Your task to perform on an android device: Go to Wikipedia Image 0: 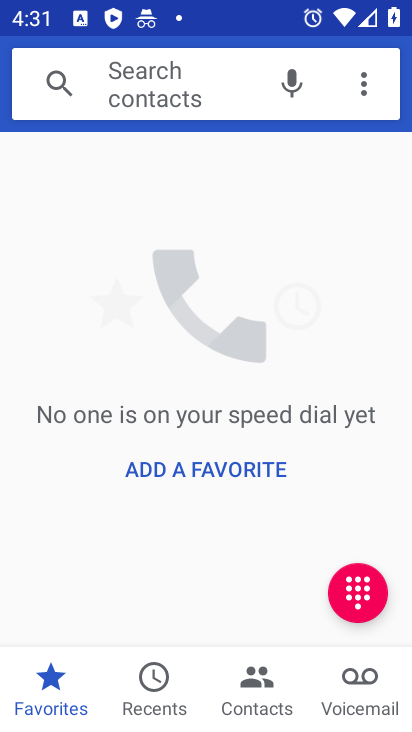
Step 0: press home button
Your task to perform on an android device: Go to Wikipedia Image 1: 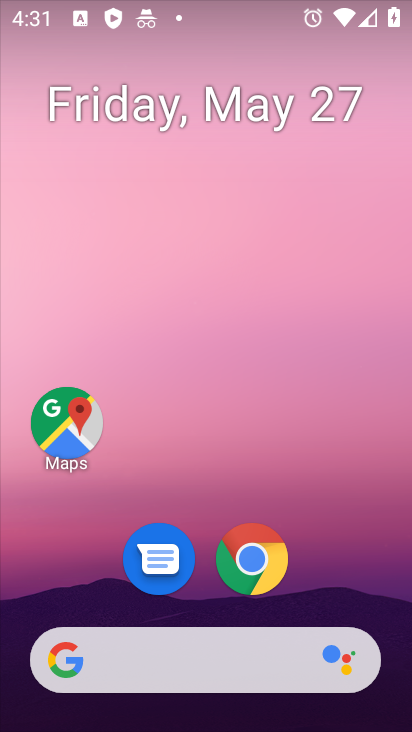
Step 1: drag from (326, 648) to (321, 6)
Your task to perform on an android device: Go to Wikipedia Image 2: 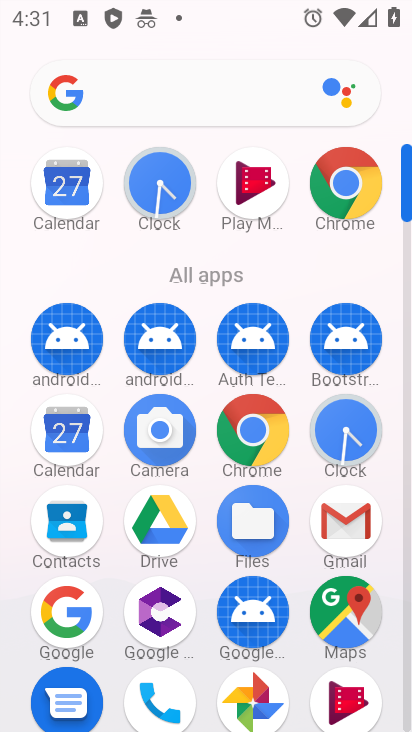
Step 2: click (270, 435)
Your task to perform on an android device: Go to Wikipedia Image 3: 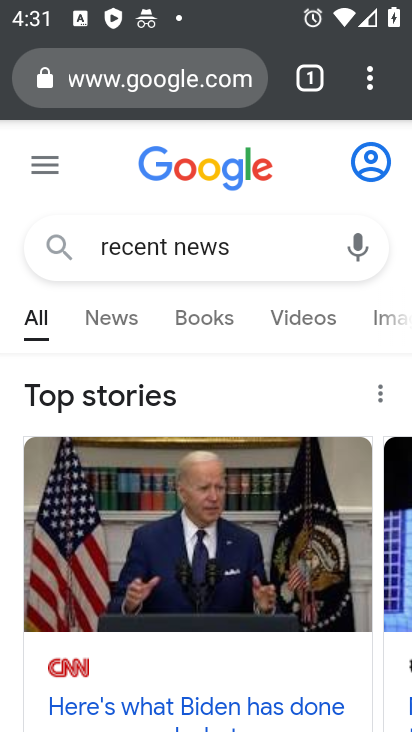
Step 3: drag from (364, 83) to (192, 151)
Your task to perform on an android device: Go to Wikipedia Image 4: 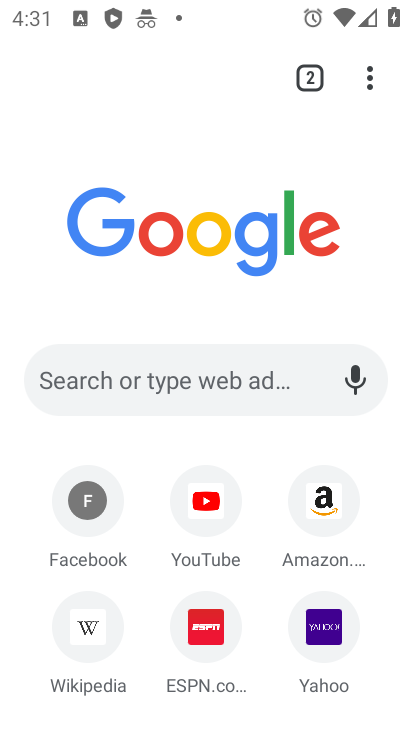
Step 4: click (94, 621)
Your task to perform on an android device: Go to Wikipedia Image 5: 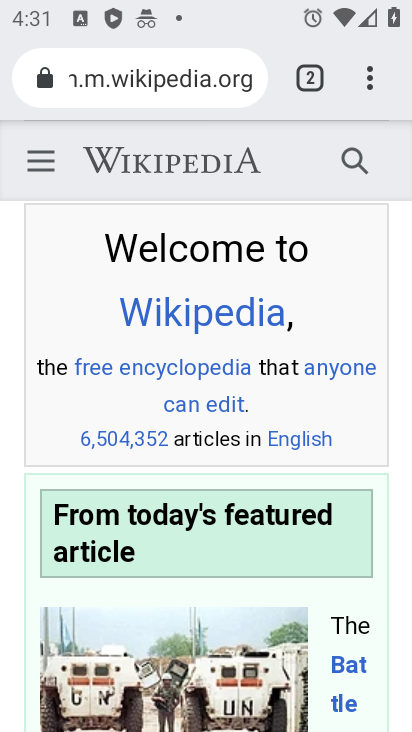
Step 5: task complete